Your task to perform on an android device: See recent photos Image 0: 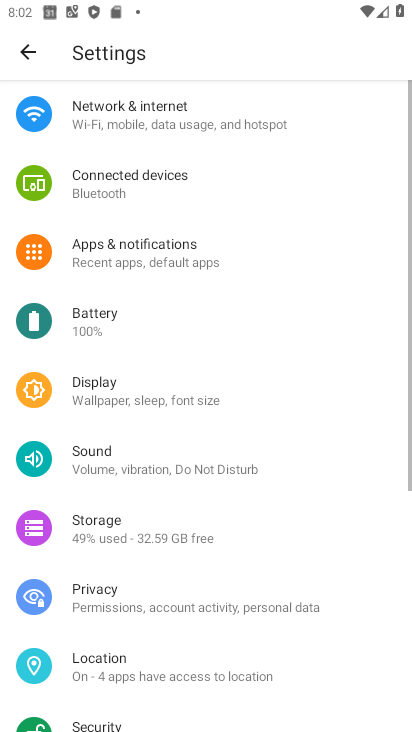
Step 0: press home button
Your task to perform on an android device: See recent photos Image 1: 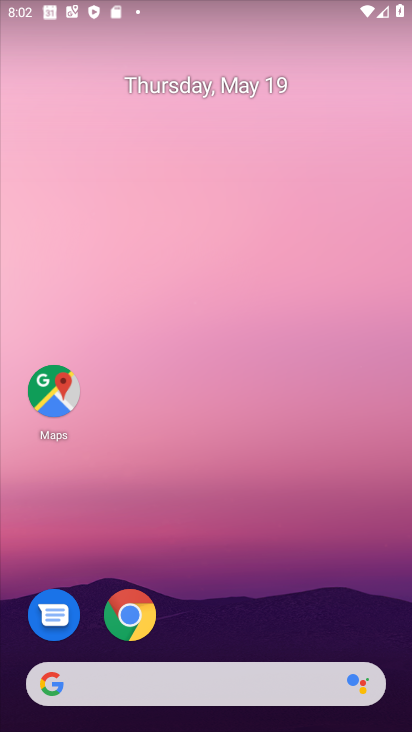
Step 1: drag from (244, 546) to (247, 8)
Your task to perform on an android device: See recent photos Image 2: 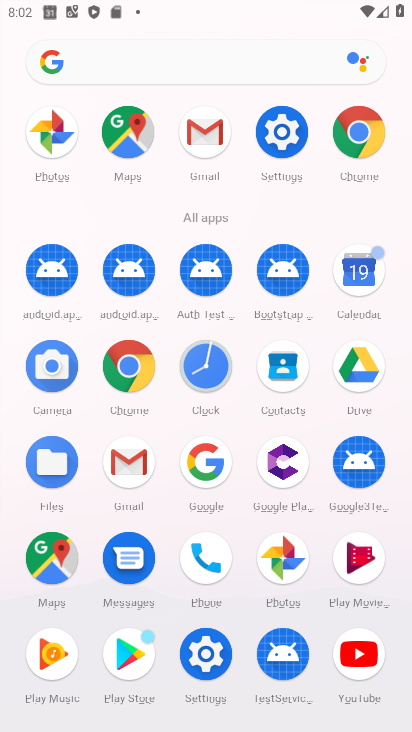
Step 2: click (282, 554)
Your task to perform on an android device: See recent photos Image 3: 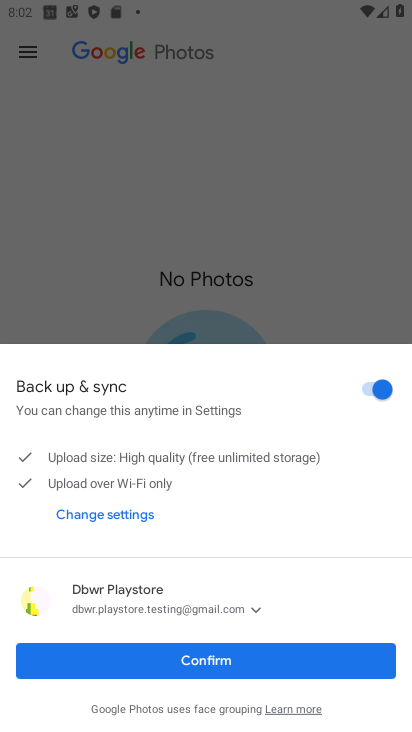
Step 3: click (204, 646)
Your task to perform on an android device: See recent photos Image 4: 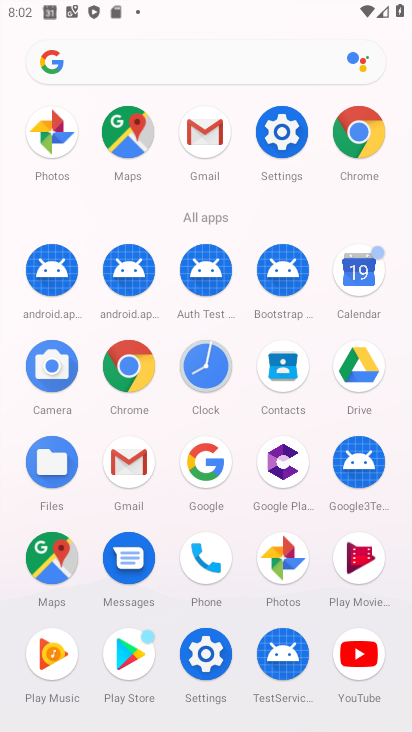
Step 4: click (296, 559)
Your task to perform on an android device: See recent photos Image 5: 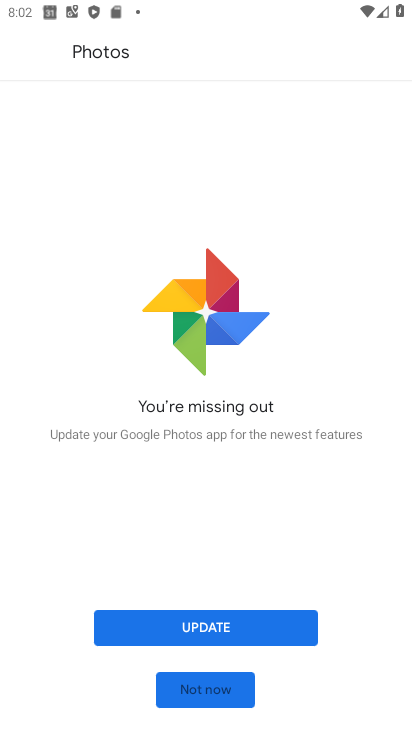
Step 5: click (210, 622)
Your task to perform on an android device: See recent photos Image 6: 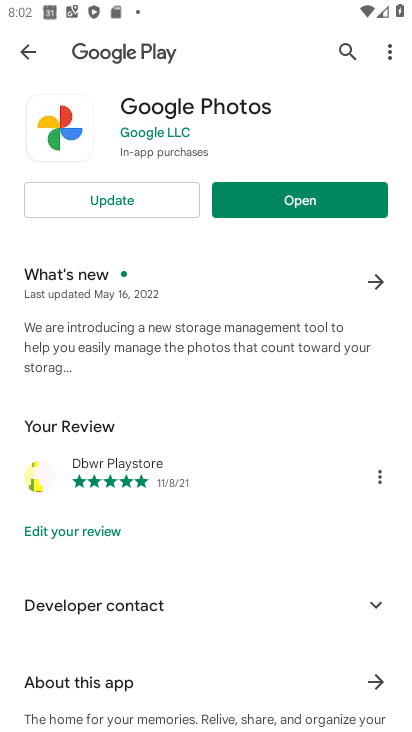
Step 6: click (286, 211)
Your task to perform on an android device: See recent photos Image 7: 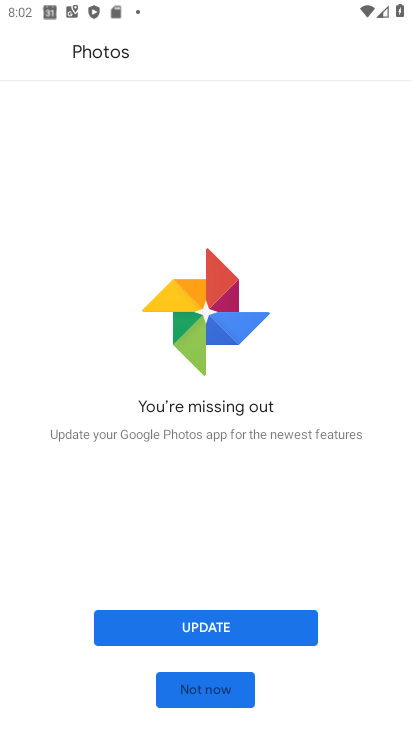
Step 7: click (198, 615)
Your task to perform on an android device: See recent photos Image 8: 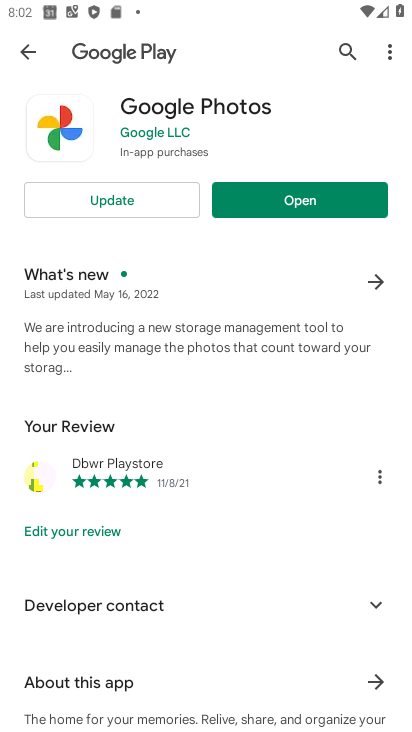
Step 8: click (124, 187)
Your task to perform on an android device: See recent photos Image 9: 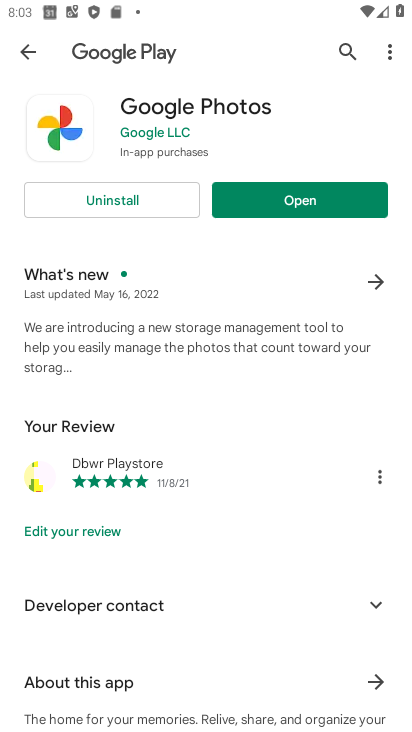
Step 9: click (270, 214)
Your task to perform on an android device: See recent photos Image 10: 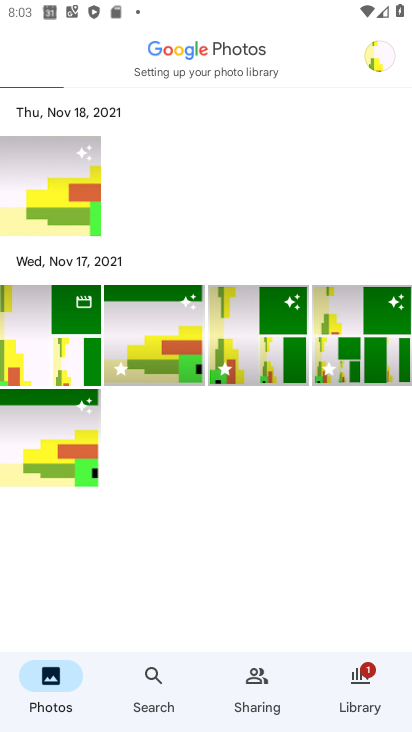
Step 10: task complete